Your task to perform on an android device: turn notification dots on Image 0: 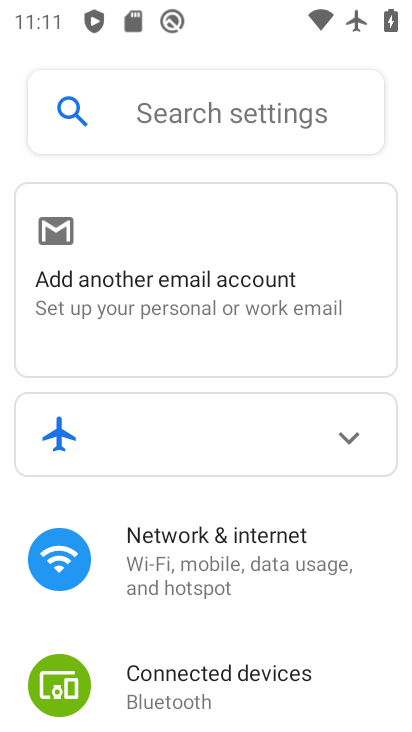
Step 0: drag from (194, 653) to (224, 230)
Your task to perform on an android device: turn notification dots on Image 1: 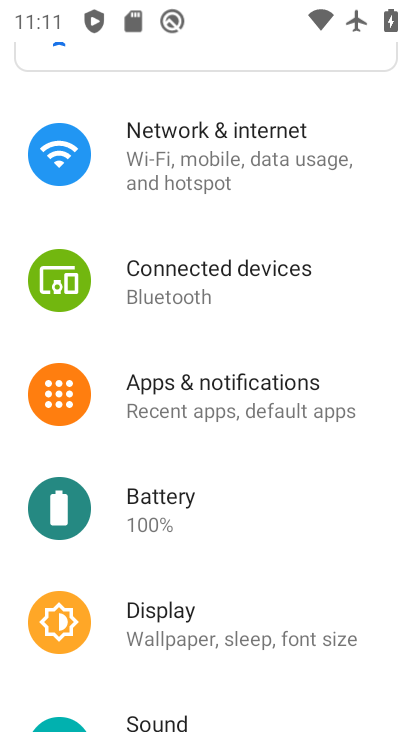
Step 1: click (229, 377)
Your task to perform on an android device: turn notification dots on Image 2: 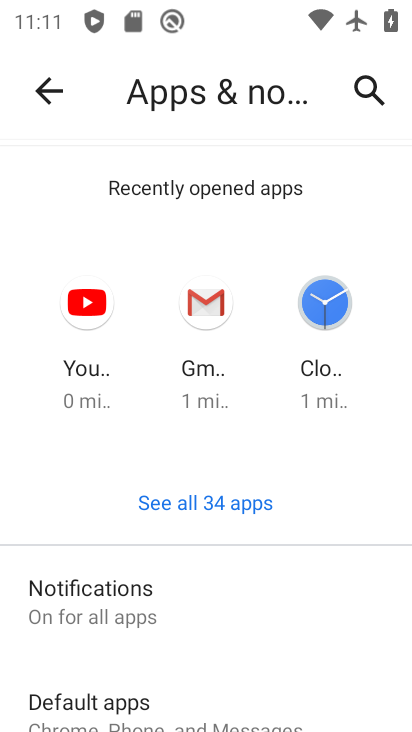
Step 2: drag from (199, 567) to (263, 280)
Your task to perform on an android device: turn notification dots on Image 3: 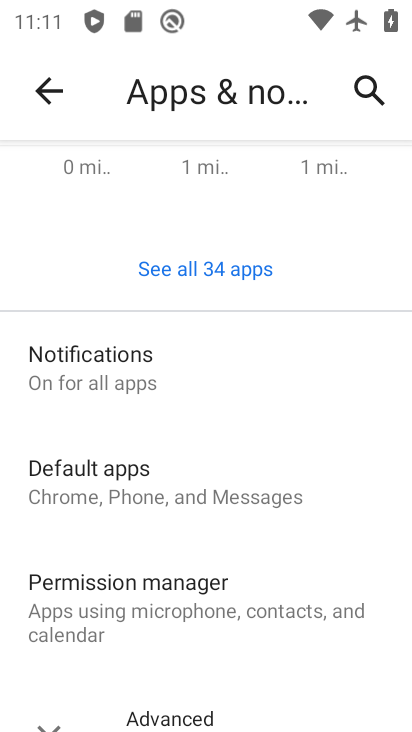
Step 3: click (156, 349)
Your task to perform on an android device: turn notification dots on Image 4: 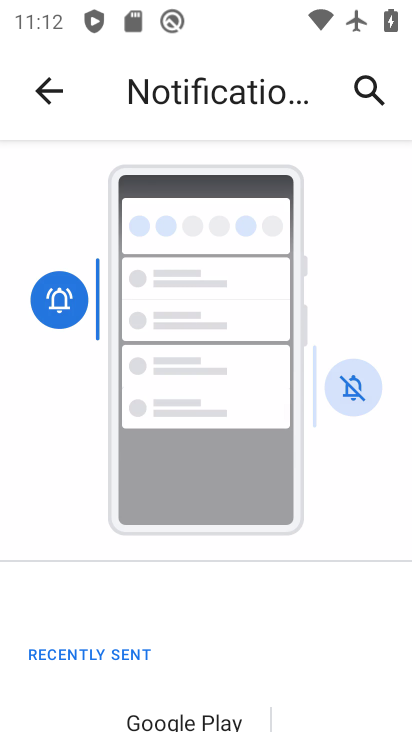
Step 4: drag from (247, 593) to (252, 303)
Your task to perform on an android device: turn notification dots on Image 5: 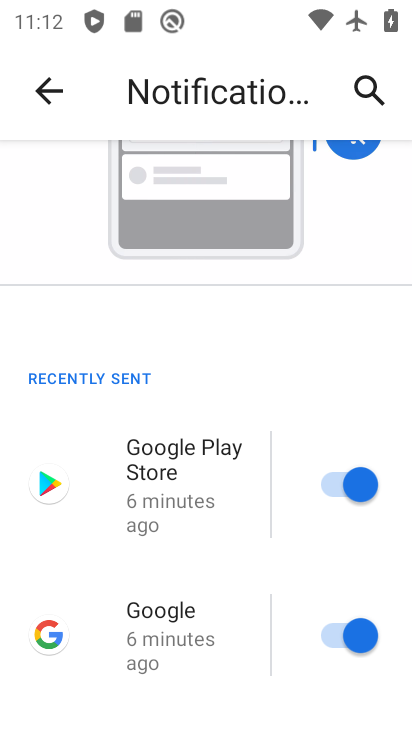
Step 5: drag from (243, 599) to (246, 241)
Your task to perform on an android device: turn notification dots on Image 6: 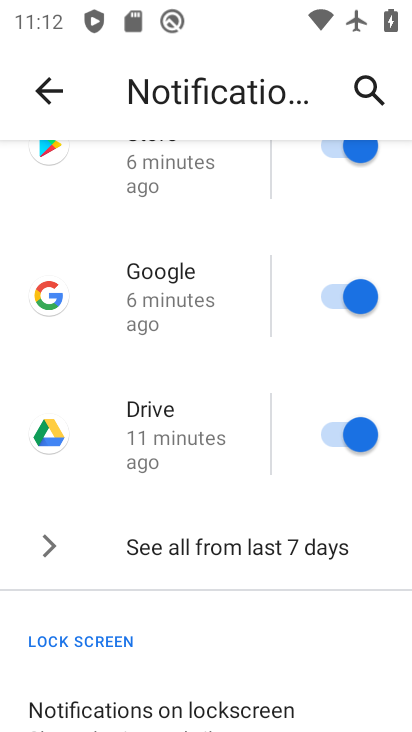
Step 6: drag from (240, 645) to (246, 273)
Your task to perform on an android device: turn notification dots on Image 7: 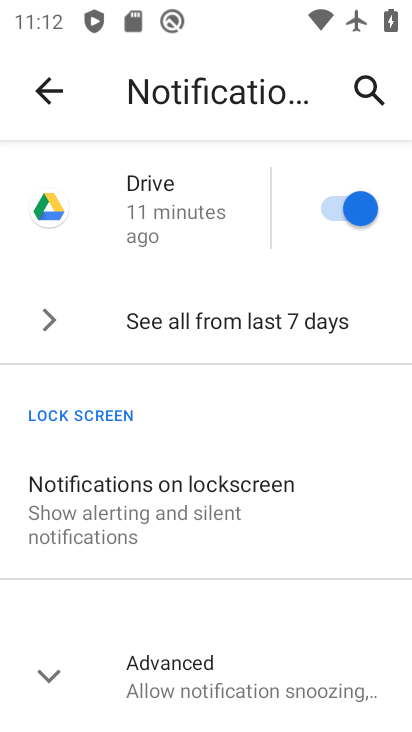
Step 7: click (260, 652)
Your task to perform on an android device: turn notification dots on Image 8: 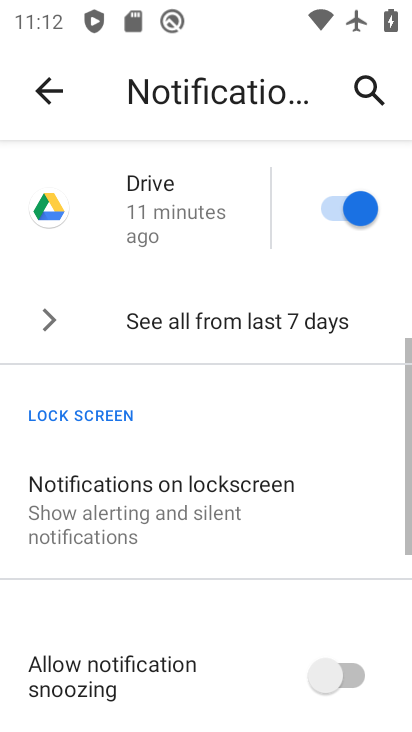
Step 8: drag from (230, 660) to (260, 258)
Your task to perform on an android device: turn notification dots on Image 9: 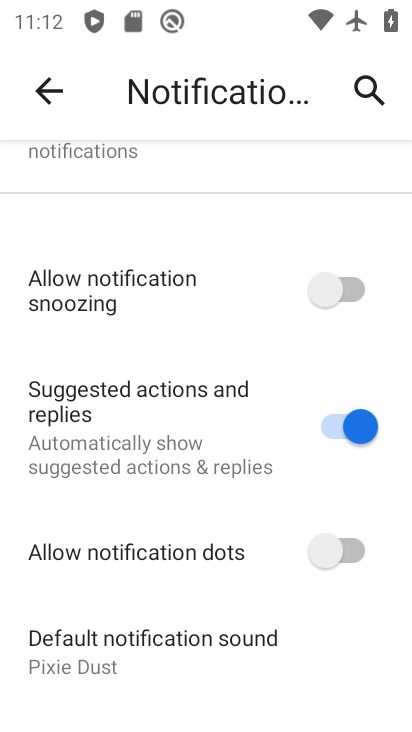
Step 9: click (331, 553)
Your task to perform on an android device: turn notification dots on Image 10: 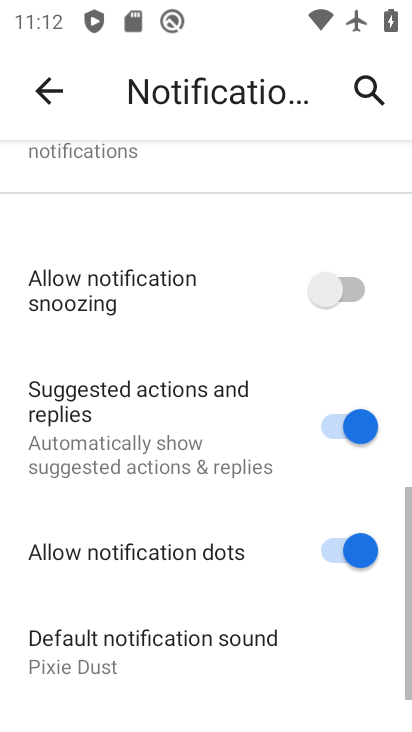
Step 10: task complete